Your task to perform on an android device: Go to accessibility settings Image 0: 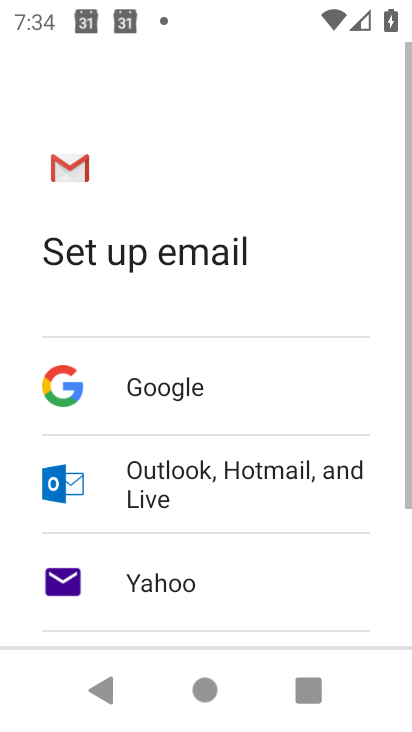
Step 0: press home button
Your task to perform on an android device: Go to accessibility settings Image 1: 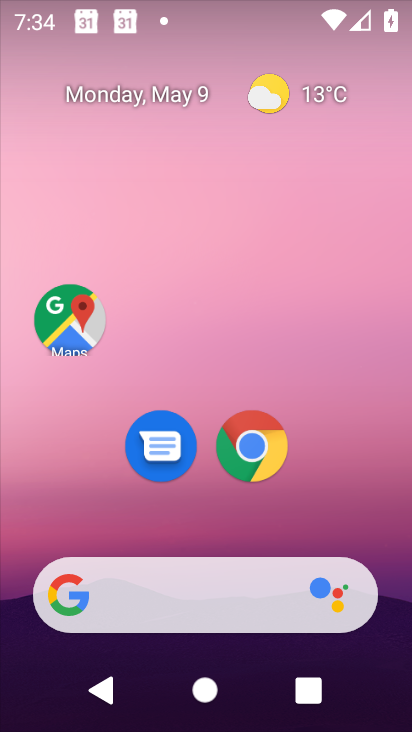
Step 1: drag from (297, 512) to (304, 594)
Your task to perform on an android device: Go to accessibility settings Image 2: 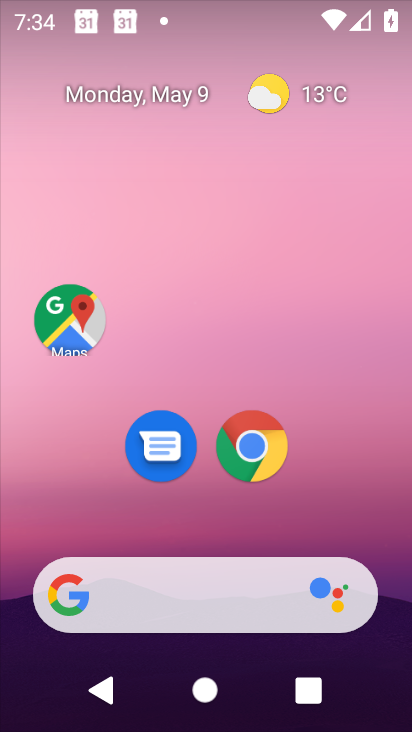
Step 2: drag from (344, 504) to (382, 154)
Your task to perform on an android device: Go to accessibility settings Image 3: 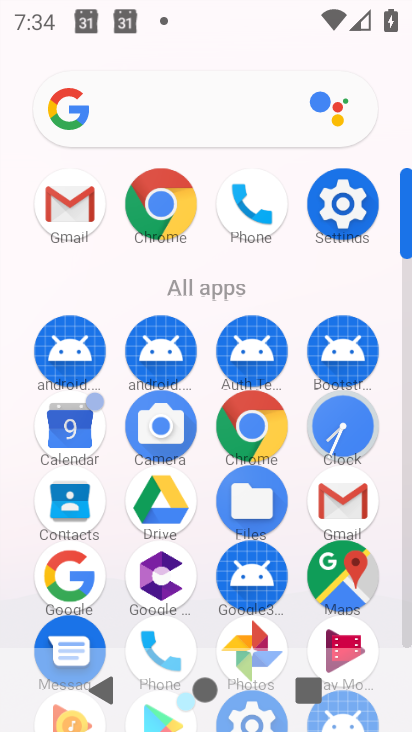
Step 3: click (370, 203)
Your task to perform on an android device: Go to accessibility settings Image 4: 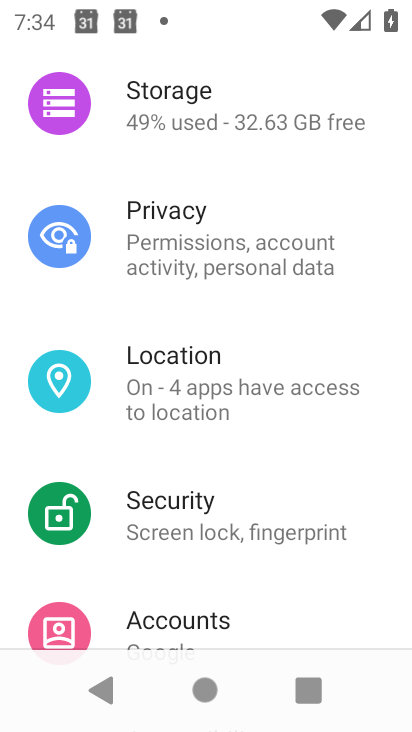
Step 4: drag from (305, 568) to (240, 151)
Your task to perform on an android device: Go to accessibility settings Image 5: 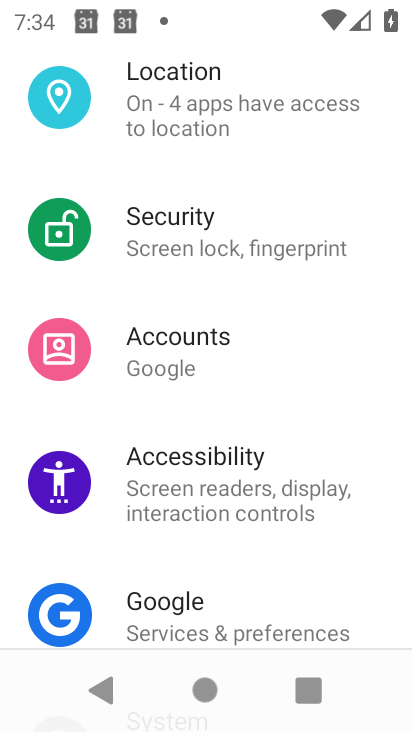
Step 5: click (261, 466)
Your task to perform on an android device: Go to accessibility settings Image 6: 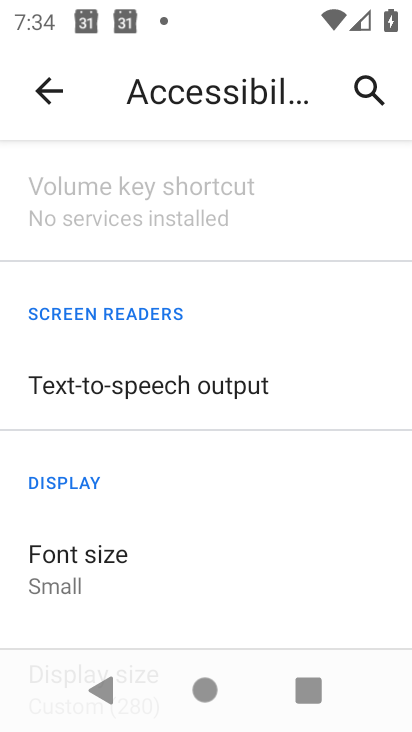
Step 6: task complete